Your task to perform on an android device: Go to calendar. Show me events next week Image 0: 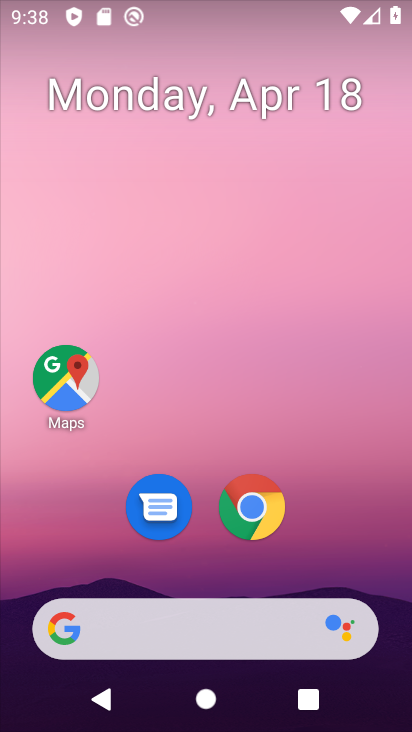
Step 0: drag from (122, 583) to (250, 43)
Your task to perform on an android device: Go to calendar. Show me events next week Image 1: 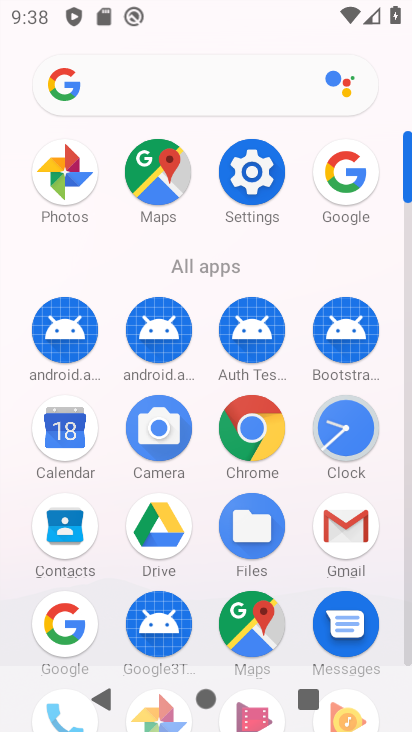
Step 1: click (80, 431)
Your task to perform on an android device: Go to calendar. Show me events next week Image 2: 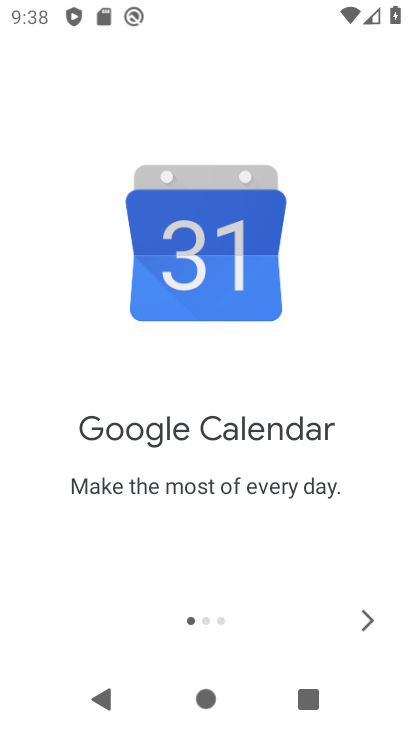
Step 2: click (365, 621)
Your task to perform on an android device: Go to calendar. Show me events next week Image 3: 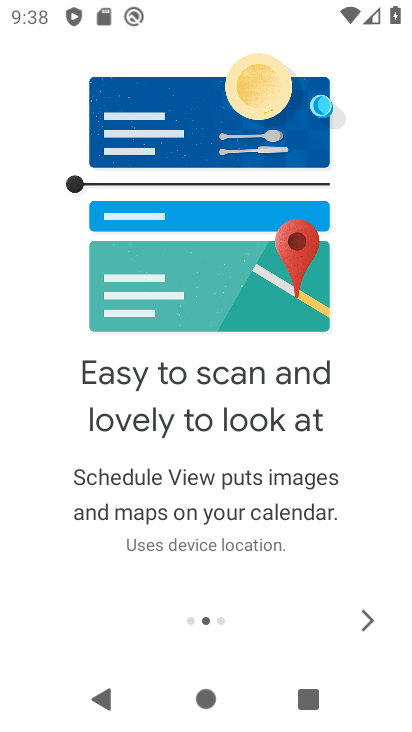
Step 3: click (365, 621)
Your task to perform on an android device: Go to calendar. Show me events next week Image 4: 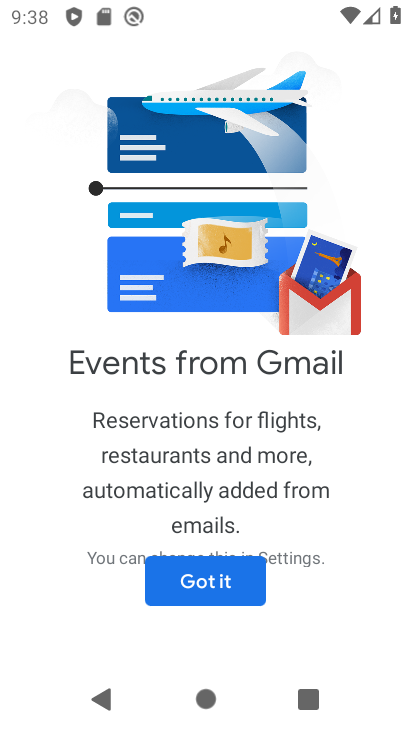
Step 4: click (235, 587)
Your task to perform on an android device: Go to calendar. Show me events next week Image 5: 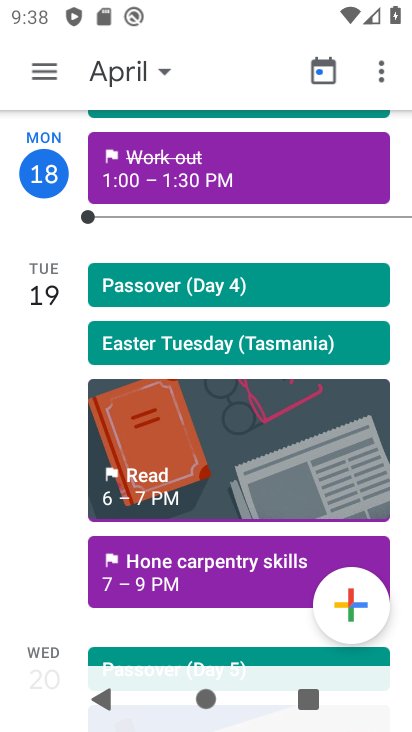
Step 5: click (108, 77)
Your task to perform on an android device: Go to calendar. Show me events next week Image 6: 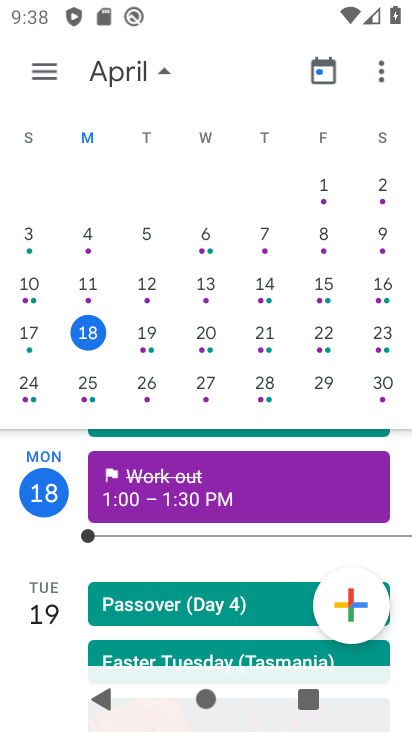
Step 6: click (33, 385)
Your task to perform on an android device: Go to calendar. Show me events next week Image 7: 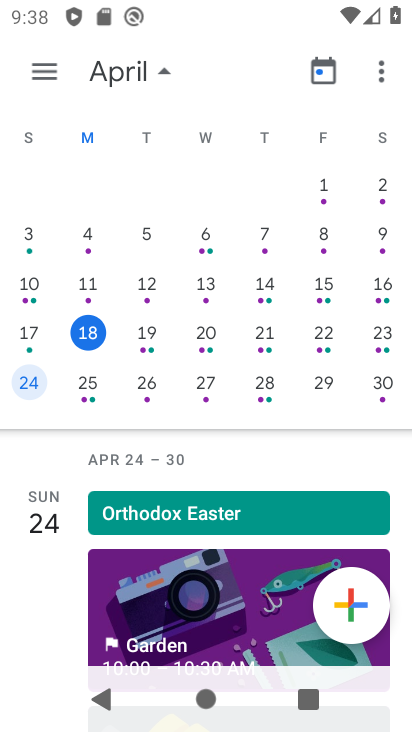
Step 7: click (56, 73)
Your task to perform on an android device: Go to calendar. Show me events next week Image 8: 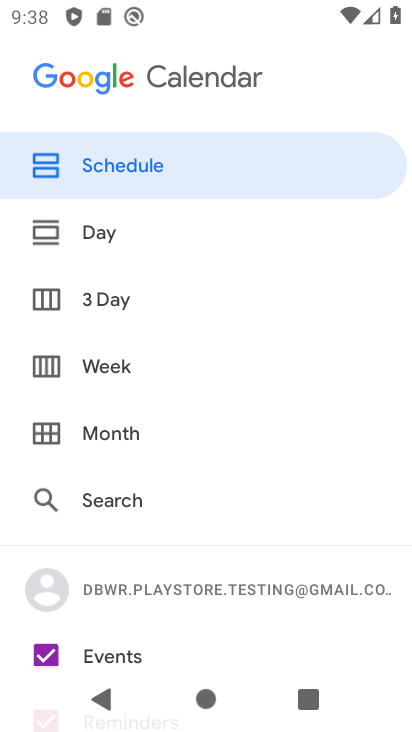
Step 8: click (165, 73)
Your task to perform on an android device: Go to calendar. Show me events next week Image 9: 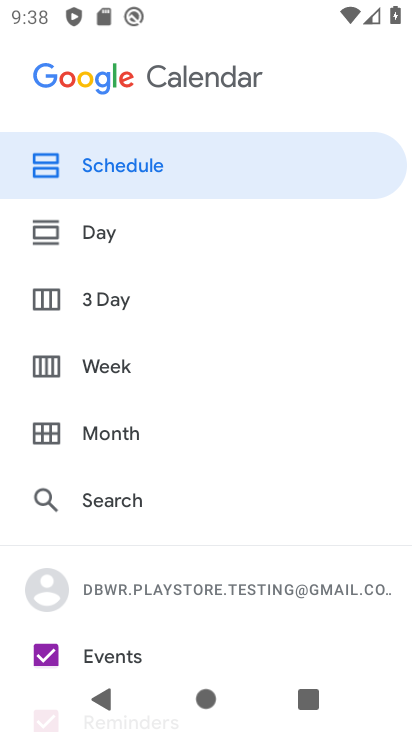
Step 9: click (146, 374)
Your task to perform on an android device: Go to calendar. Show me events next week Image 10: 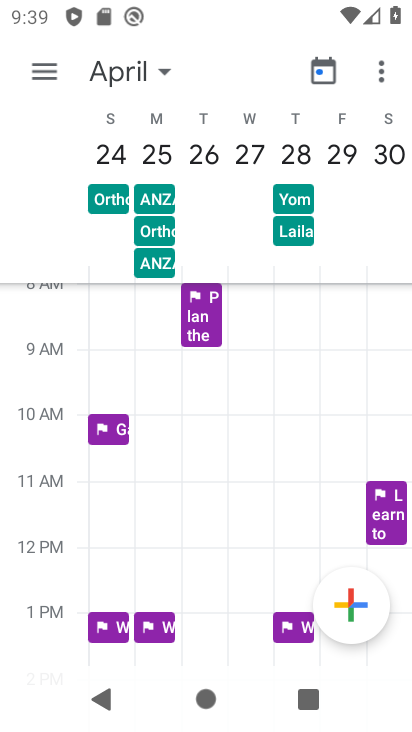
Step 10: task complete